Your task to perform on an android device: manage bookmarks in the chrome app Image 0: 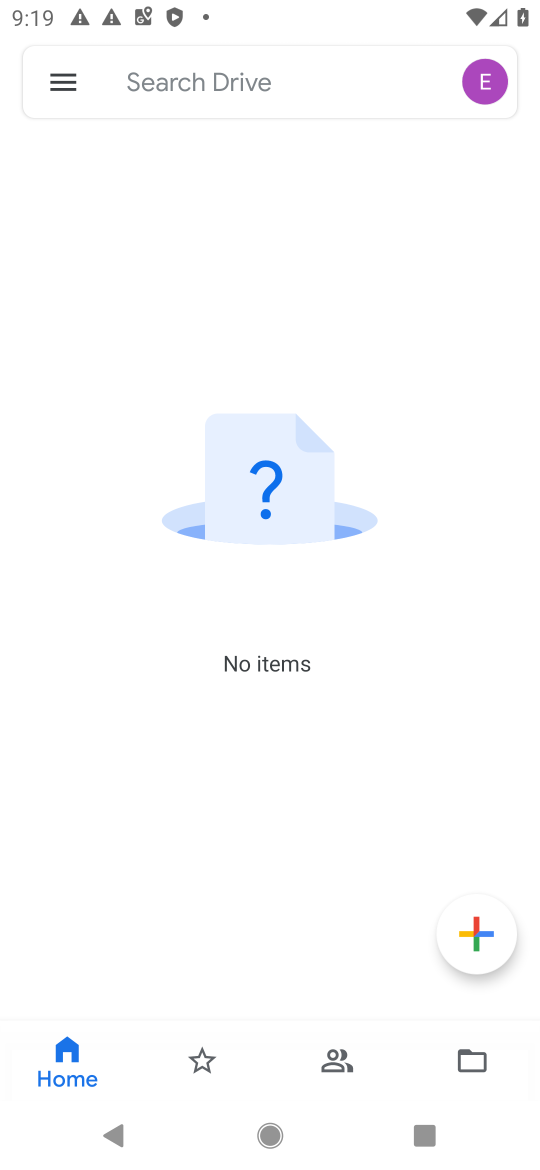
Step 0: press home button
Your task to perform on an android device: manage bookmarks in the chrome app Image 1: 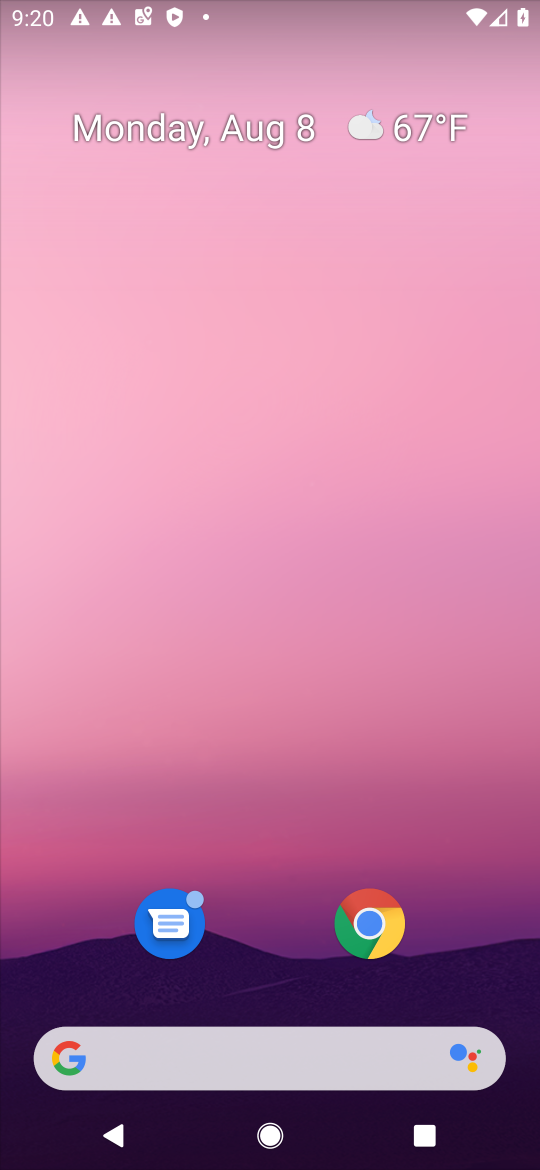
Step 1: click (371, 919)
Your task to perform on an android device: manage bookmarks in the chrome app Image 2: 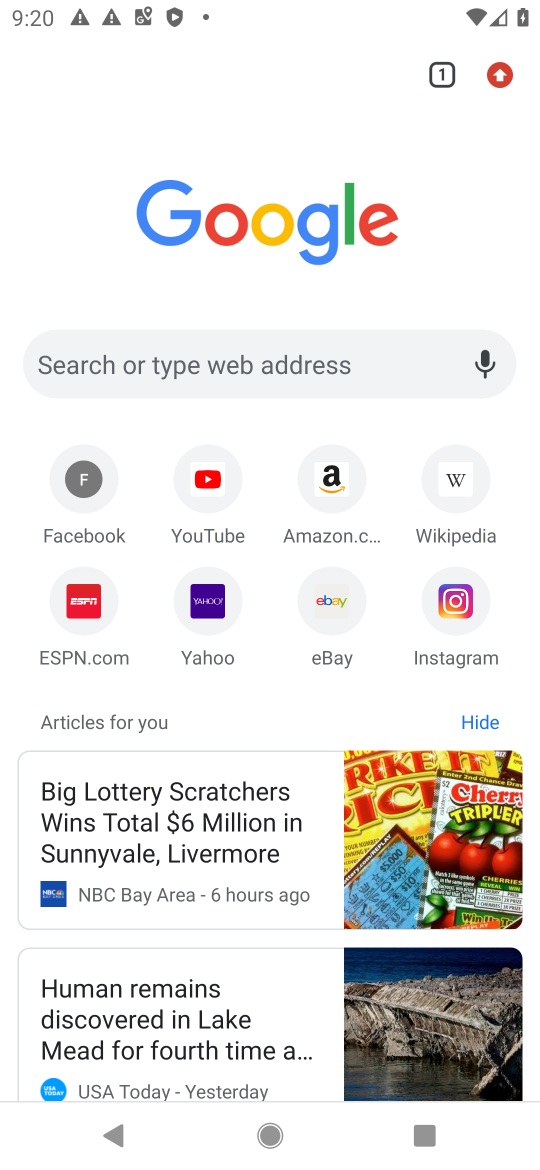
Step 2: click (504, 85)
Your task to perform on an android device: manage bookmarks in the chrome app Image 3: 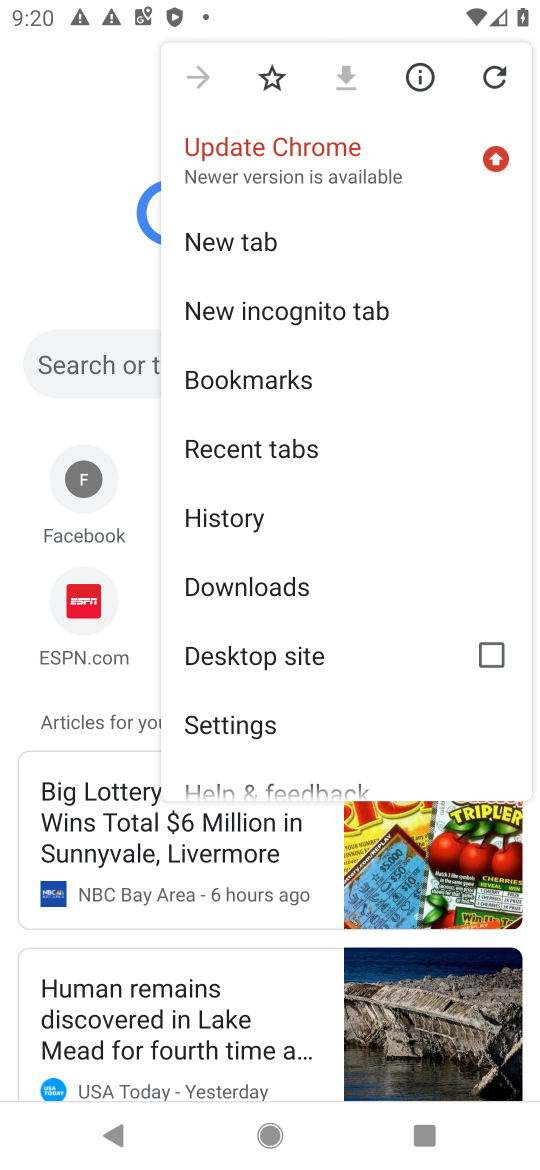
Step 3: click (256, 381)
Your task to perform on an android device: manage bookmarks in the chrome app Image 4: 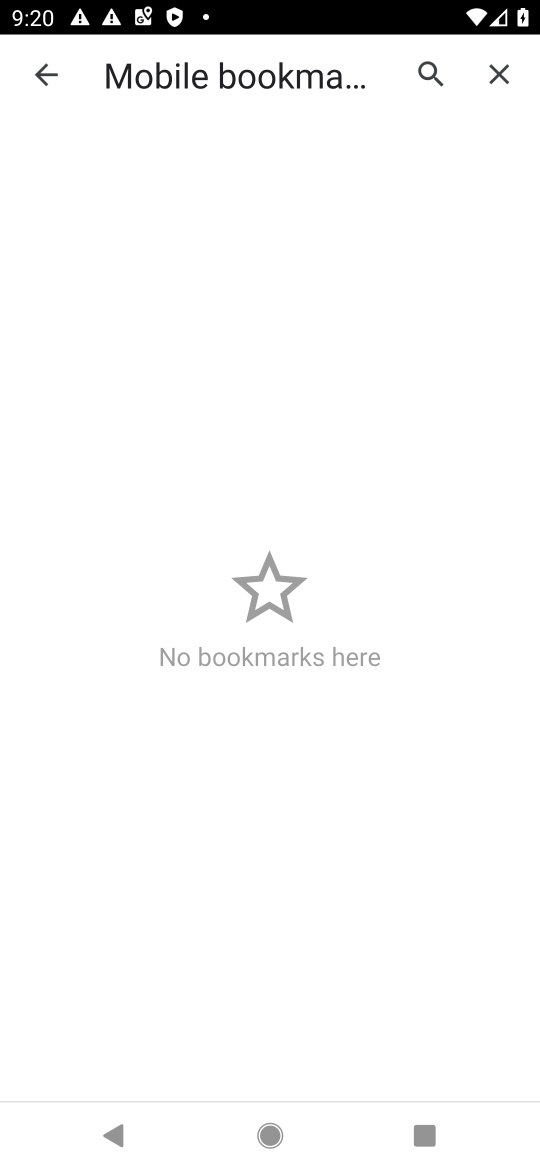
Step 4: task complete